Your task to perform on an android device: toggle notifications settings in the gmail app Image 0: 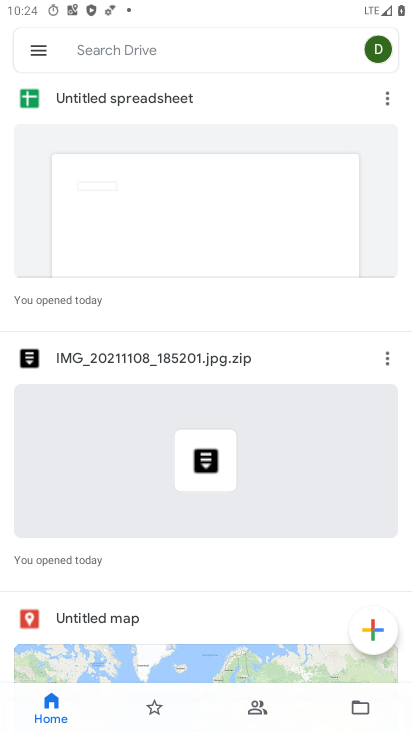
Step 0: press home button
Your task to perform on an android device: toggle notifications settings in the gmail app Image 1: 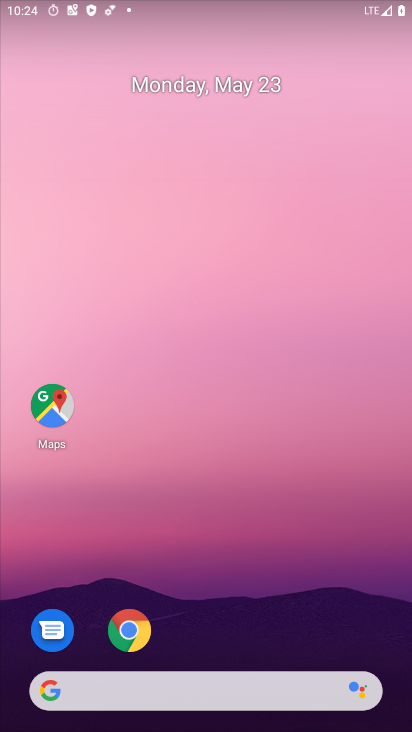
Step 1: drag from (293, 649) to (336, 12)
Your task to perform on an android device: toggle notifications settings in the gmail app Image 2: 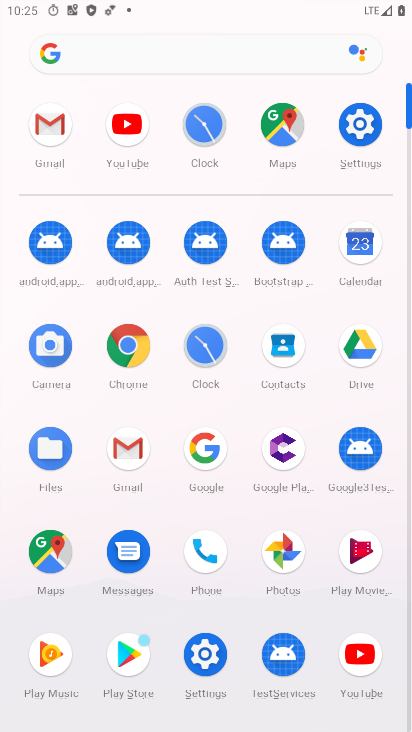
Step 2: click (49, 131)
Your task to perform on an android device: toggle notifications settings in the gmail app Image 3: 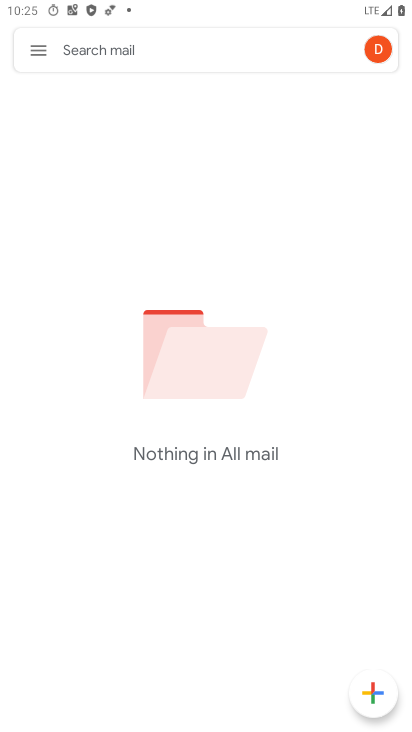
Step 3: click (34, 56)
Your task to perform on an android device: toggle notifications settings in the gmail app Image 4: 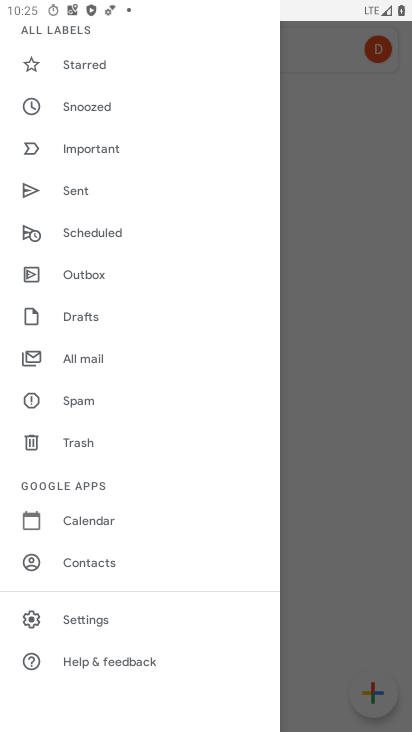
Step 4: click (86, 620)
Your task to perform on an android device: toggle notifications settings in the gmail app Image 5: 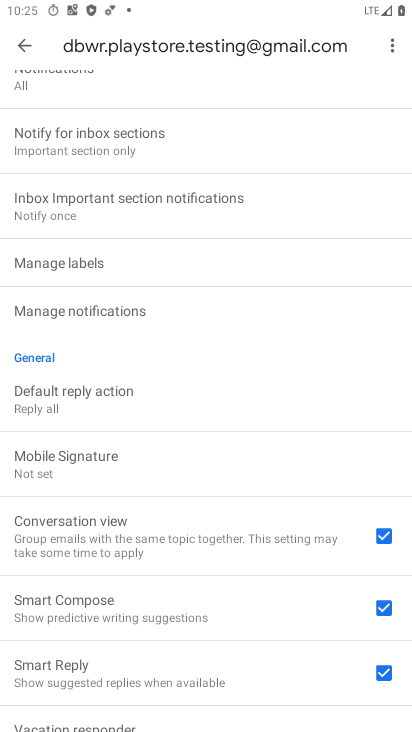
Step 5: click (16, 44)
Your task to perform on an android device: toggle notifications settings in the gmail app Image 6: 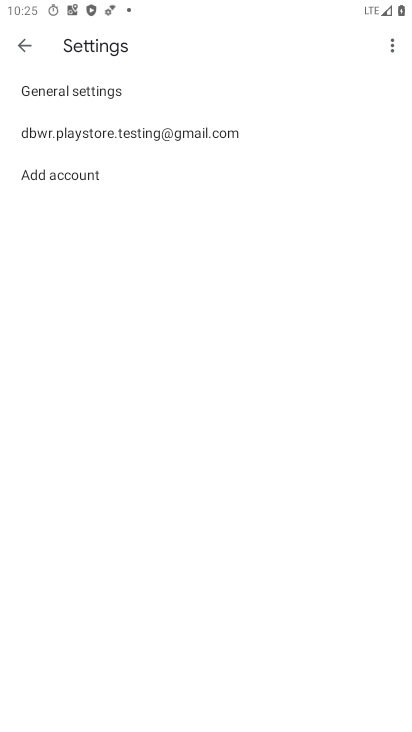
Step 6: click (53, 96)
Your task to perform on an android device: toggle notifications settings in the gmail app Image 7: 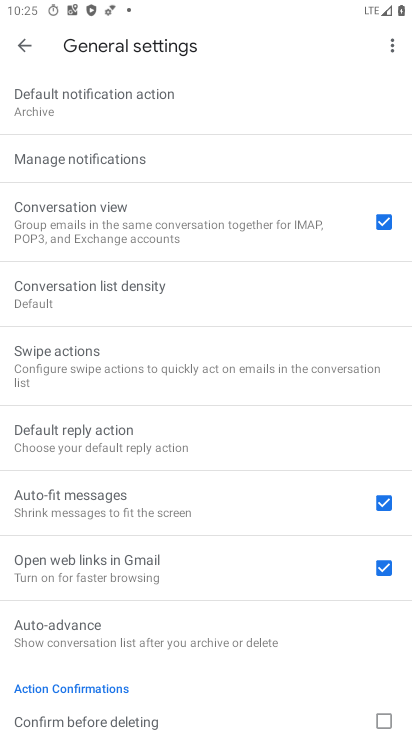
Step 7: click (54, 161)
Your task to perform on an android device: toggle notifications settings in the gmail app Image 8: 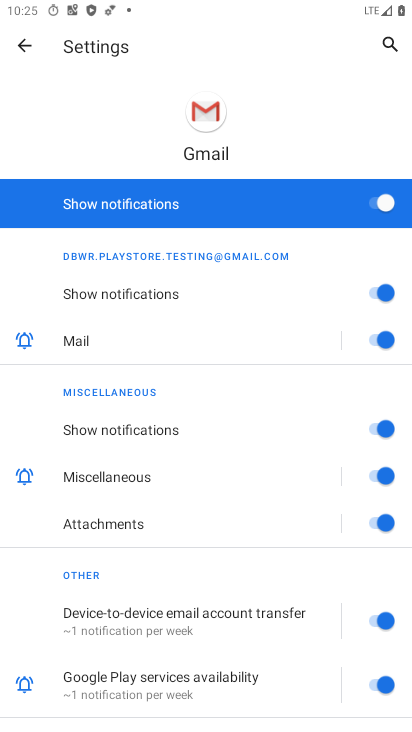
Step 8: click (380, 209)
Your task to perform on an android device: toggle notifications settings in the gmail app Image 9: 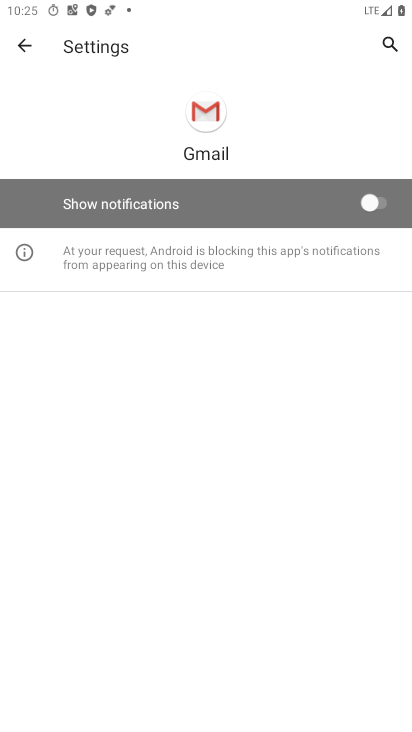
Step 9: task complete